Your task to perform on an android device: Check my gmail Image 0: 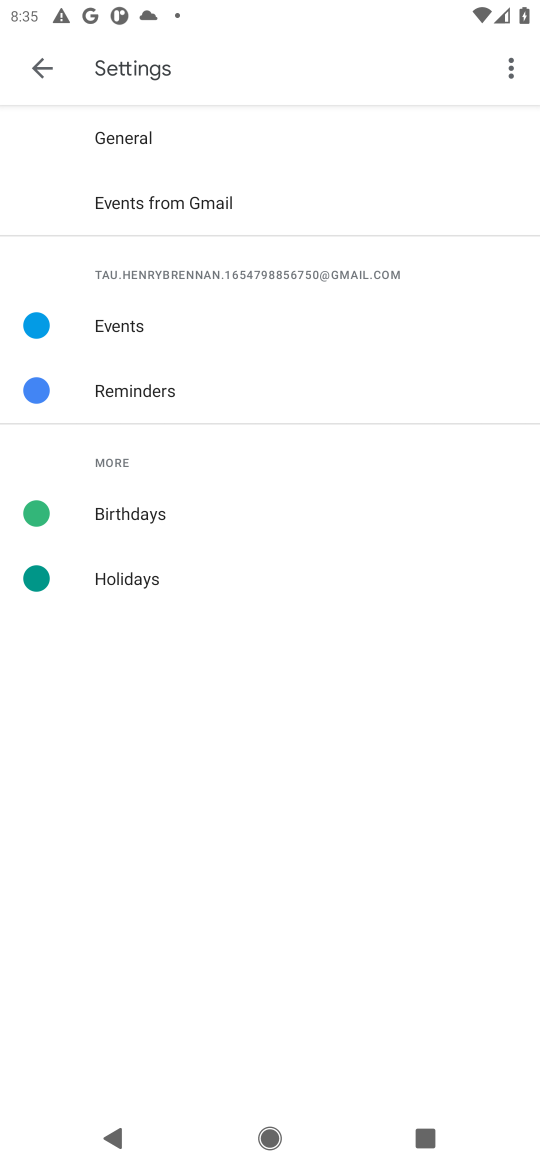
Step 0: press home button
Your task to perform on an android device: Check my gmail Image 1: 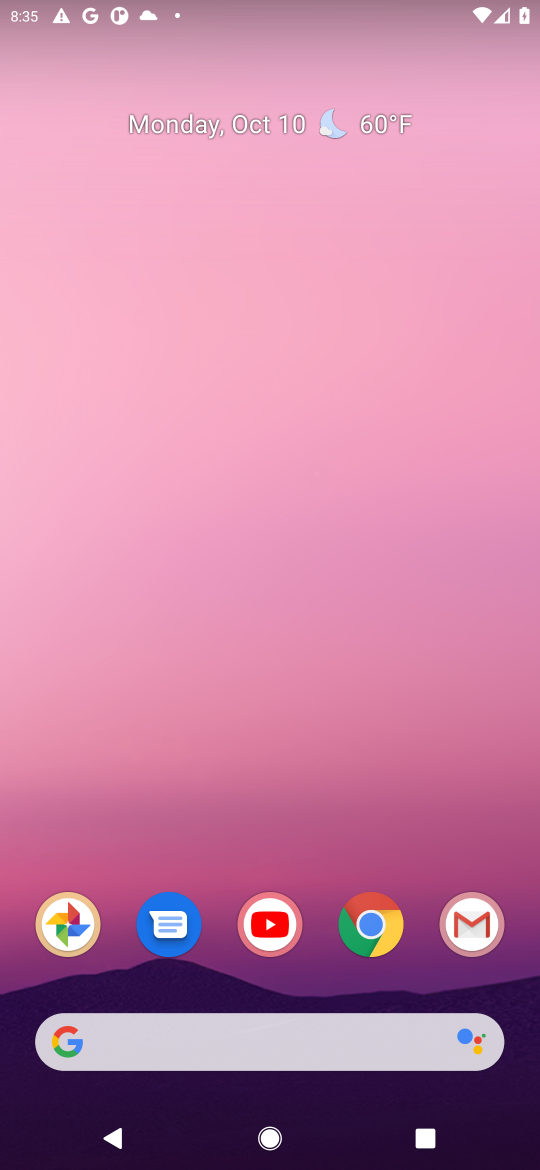
Step 1: drag from (299, 987) to (441, 50)
Your task to perform on an android device: Check my gmail Image 2: 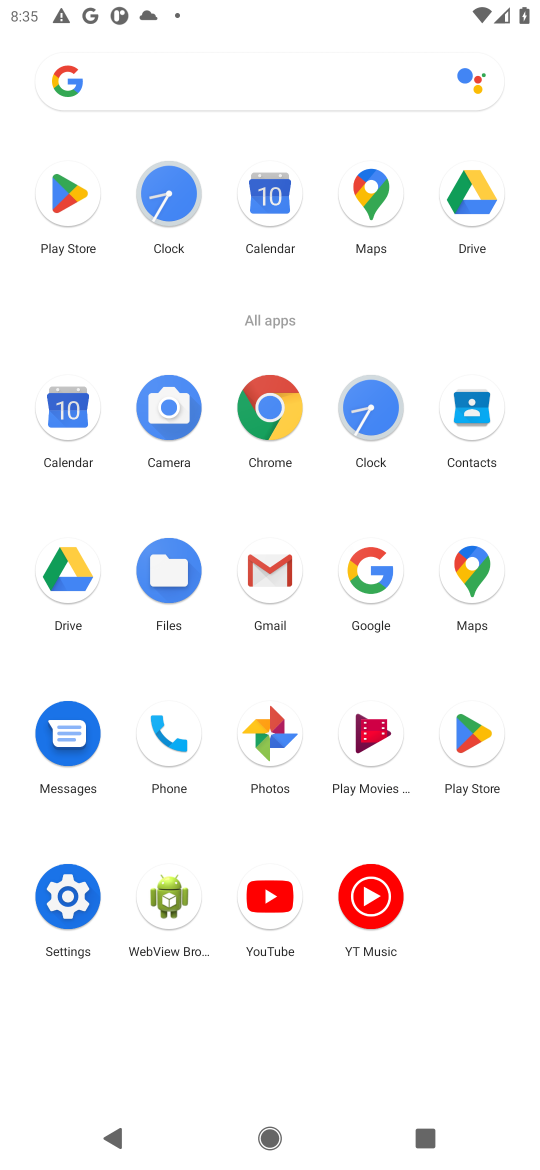
Step 2: click (279, 566)
Your task to perform on an android device: Check my gmail Image 3: 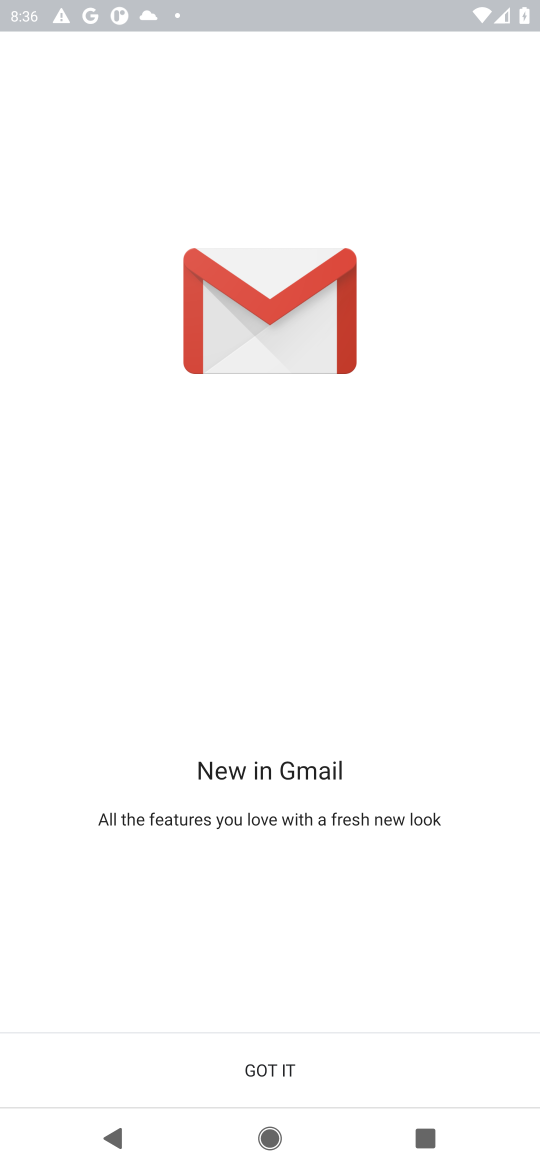
Step 3: click (339, 1077)
Your task to perform on an android device: Check my gmail Image 4: 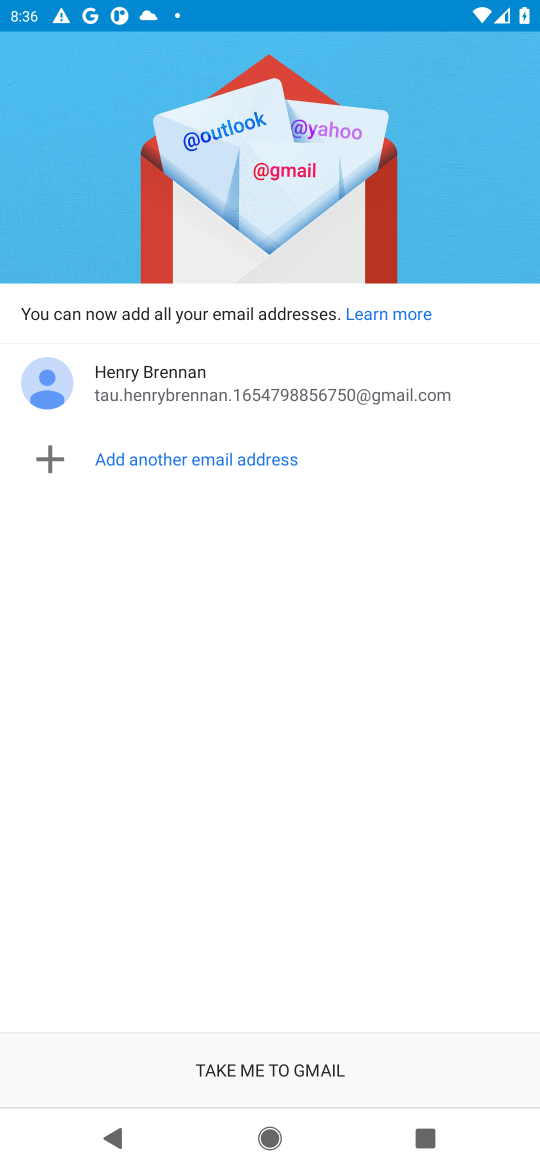
Step 4: click (339, 1077)
Your task to perform on an android device: Check my gmail Image 5: 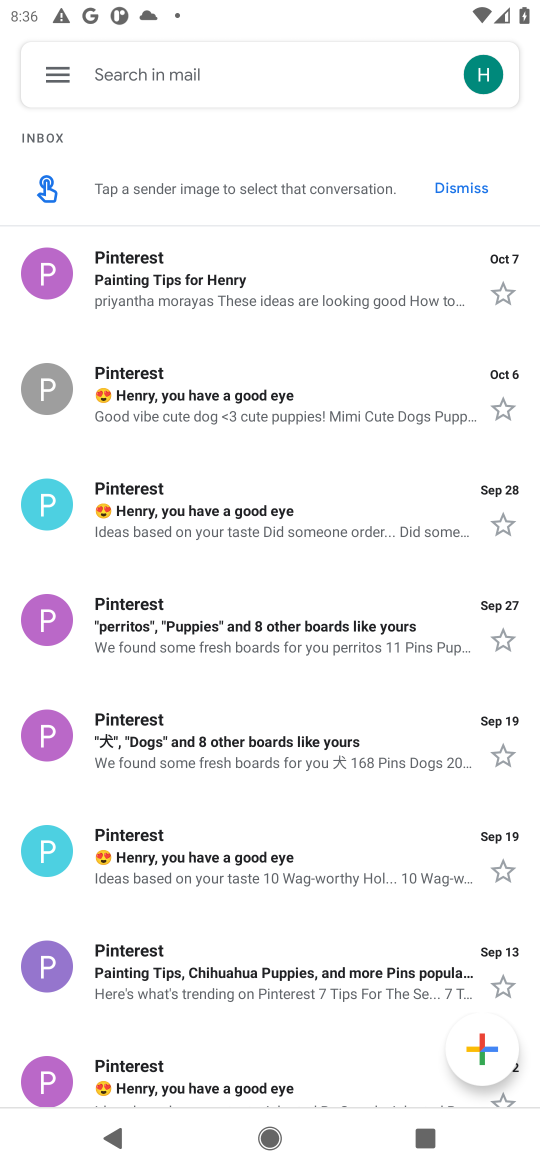
Step 5: task complete